Your task to perform on an android device: toggle airplane mode Image 0: 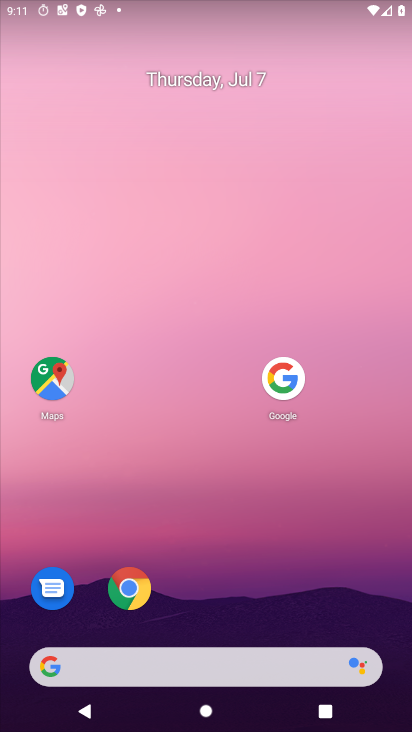
Step 0: drag from (207, 676) to (297, 120)
Your task to perform on an android device: toggle airplane mode Image 1: 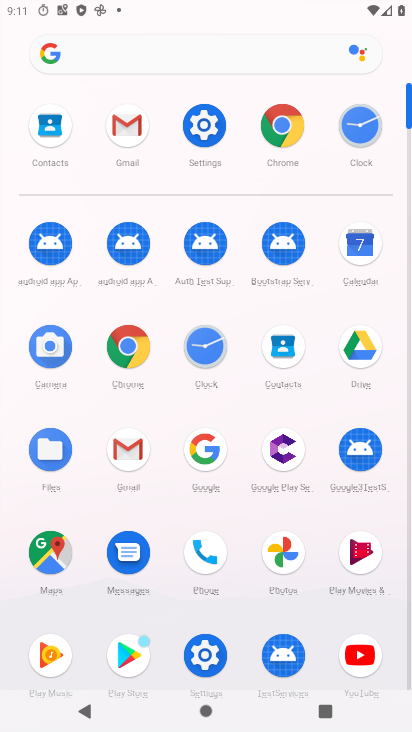
Step 1: click (193, 121)
Your task to perform on an android device: toggle airplane mode Image 2: 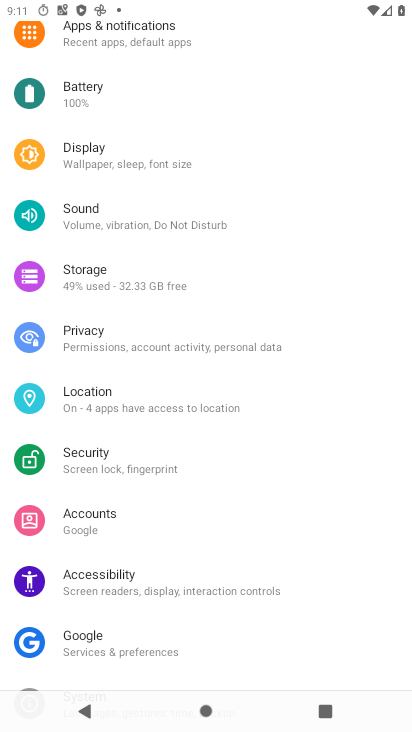
Step 2: drag from (268, 69) to (224, 514)
Your task to perform on an android device: toggle airplane mode Image 3: 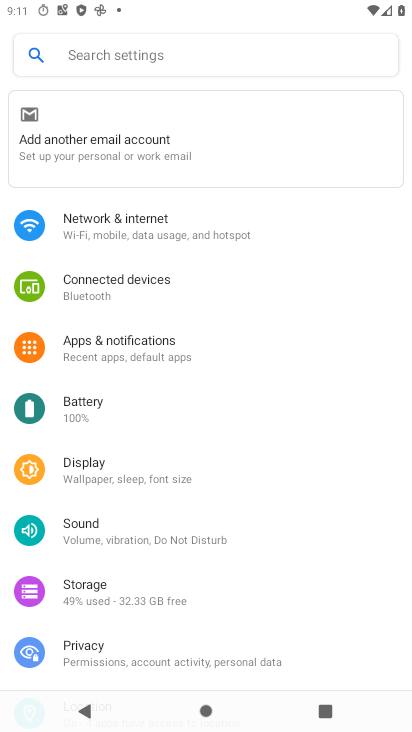
Step 3: click (103, 230)
Your task to perform on an android device: toggle airplane mode Image 4: 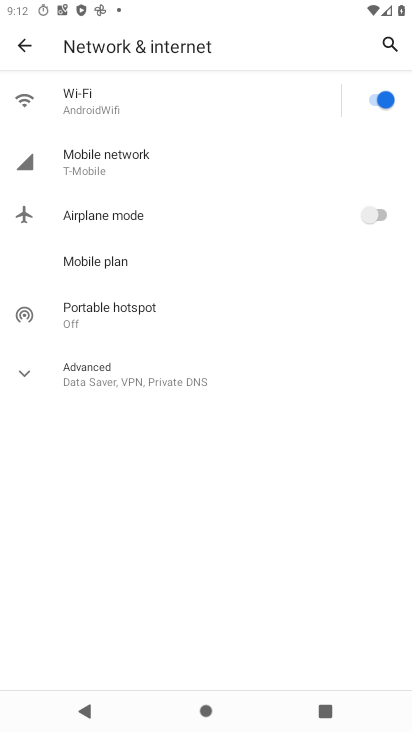
Step 4: click (379, 211)
Your task to perform on an android device: toggle airplane mode Image 5: 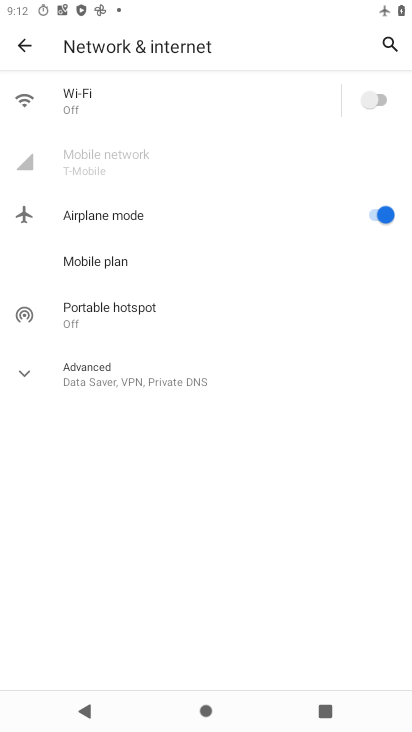
Step 5: task complete